Your task to perform on an android device: open device folders in google photos Image 0: 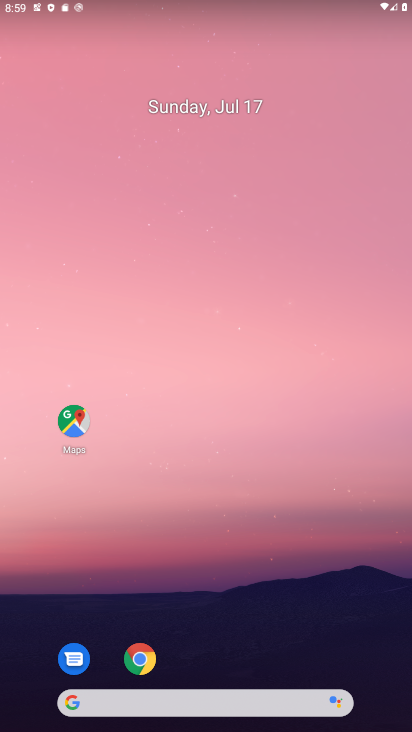
Step 0: drag from (191, 656) to (241, 157)
Your task to perform on an android device: open device folders in google photos Image 1: 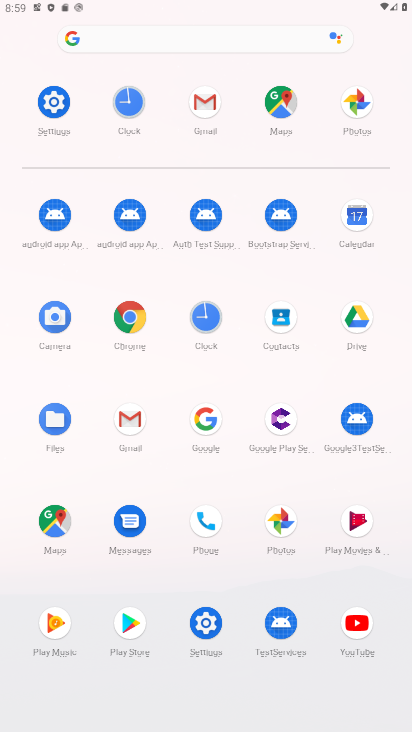
Step 1: click (353, 126)
Your task to perform on an android device: open device folders in google photos Image 2: 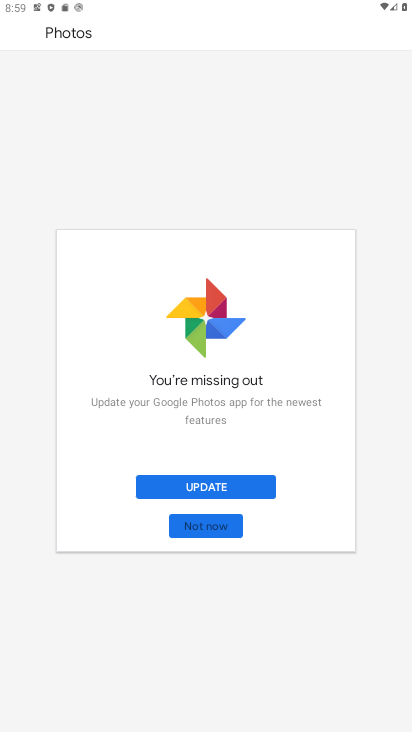
Step 2: click (209, 515)
Your task to perform on an android device: open device folders in google photos Image 3: 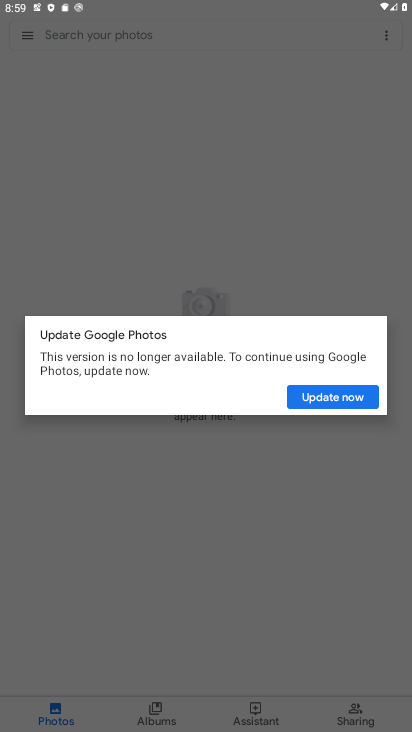
Step 3: click (309, 395)
Your task to perform on an android device: open device folders in google photos Image 4: 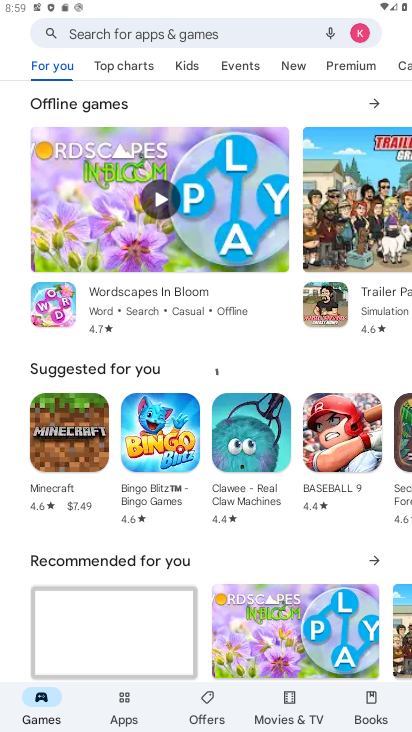
Step 4: press back button
Your task to perform on an android device: open device folders in google photos Image 5: 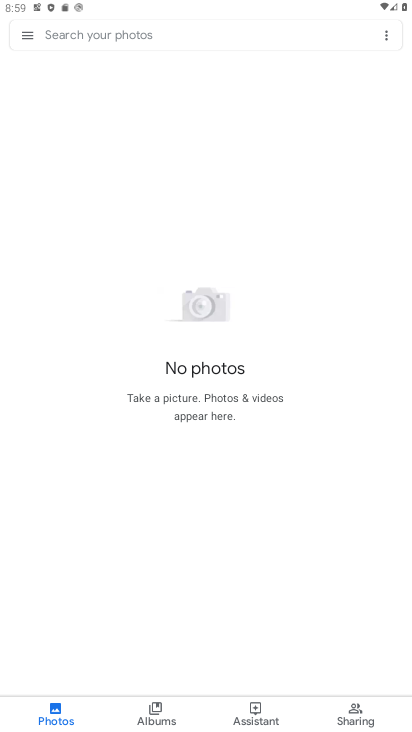
Step 5: click (34, 39)
Your task to perform on an android device: open device folders in google photos Image 6: 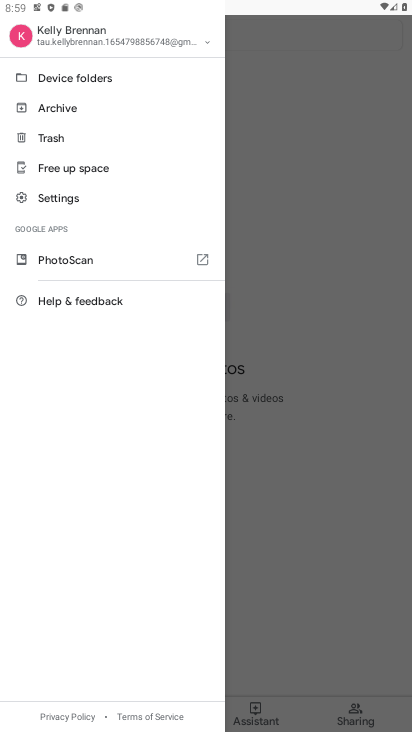
Step 6: click (99, 84)
Your task to perform on an android device: open device folders in google photos Image 7: 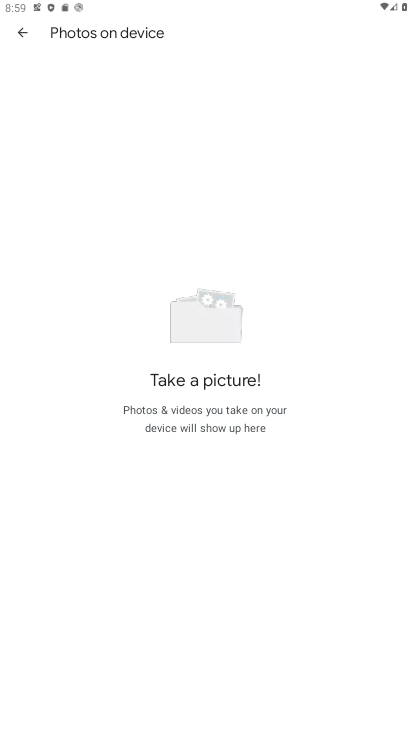
Step 7: task complete